Your task to perform on an android device: see tabs open on other devices in the chrome app Image 0: 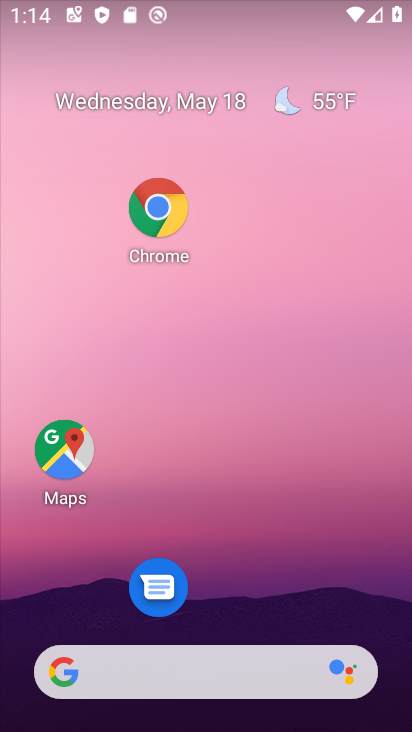
Step 0: click (172, 236)
Your task to perform on an android device: see tabs open on other devices in the chrome app Image 1: 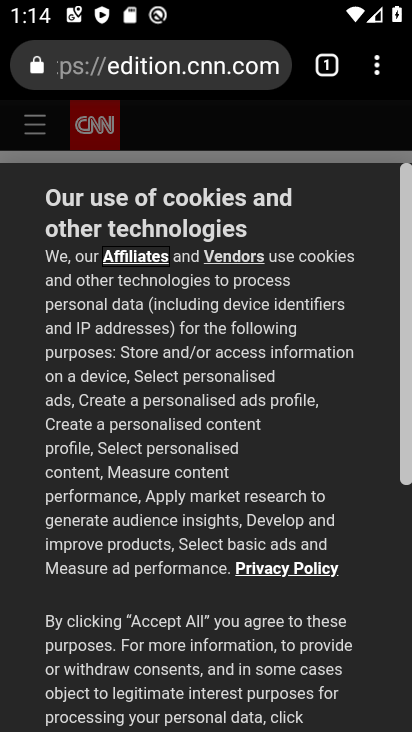
Step 1: click (325, 65)
Your task to perform on an android device: see tabs open on other devices in the chrome app Image 2: 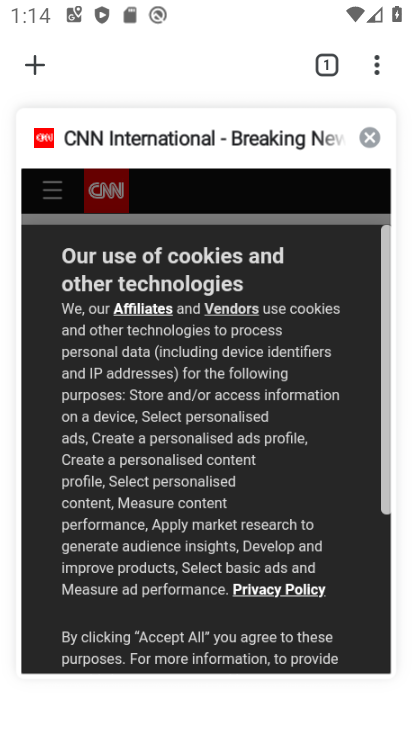
Step 2: click (327, 64)
Your task to perform on an android device: see tabs open on other devices in the chrome app Image 3: 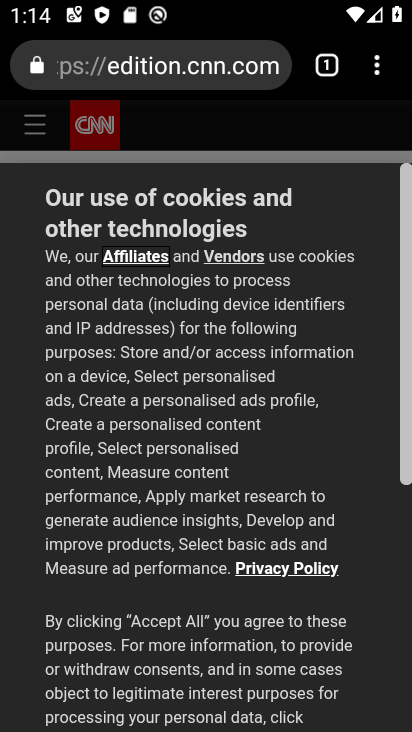
Step 3: click (377, 63)
Your task to perform on an android device: see tabs open on other devices in the chrome app Image 4: 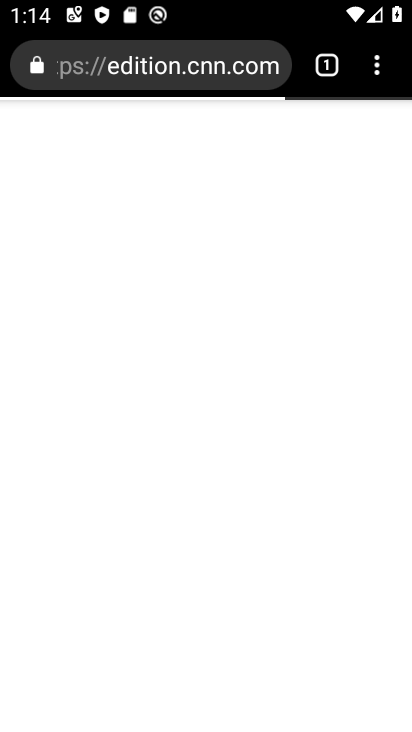
Step 4: click (379, 68)
Your task to perform on an android device: see tabs open on other devices in the chrome app Image 5: 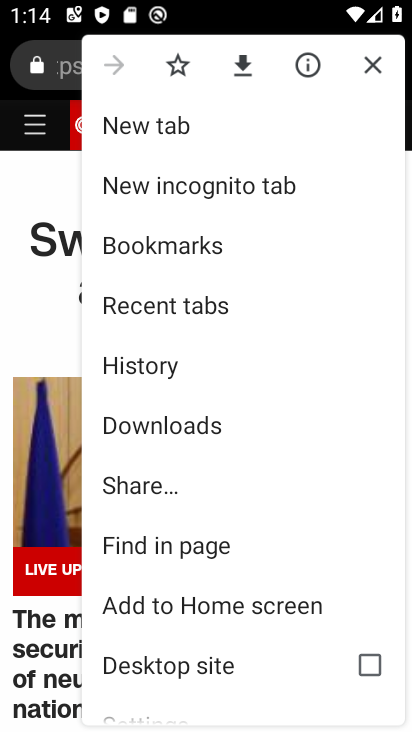
Step 5: click (216, 309)
Your task to perform on an android device: see tabs open on other devices in the chrome app Image 6: 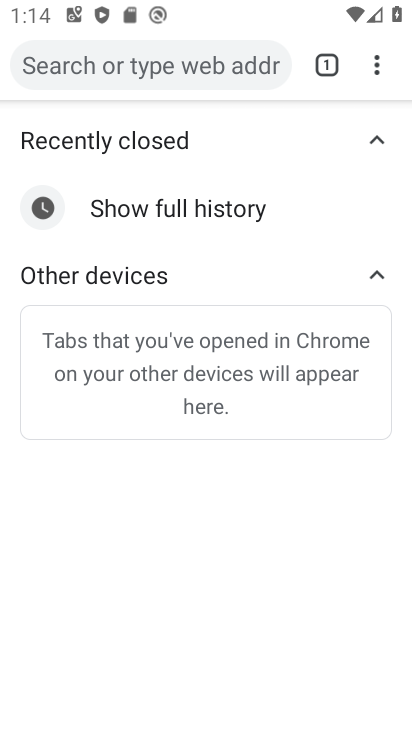
Step 6: task complete